Your task to perform on an android device: Open Youtube and go to "Your channel" Image 0: 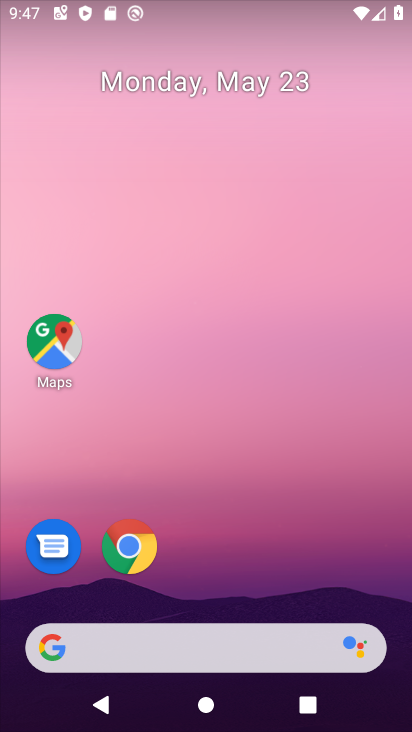
Step 0: drag from (366, 595) to (316, 161)
Your task to perform on an android device: Open Youtube and go to "Your channel" Image 1: 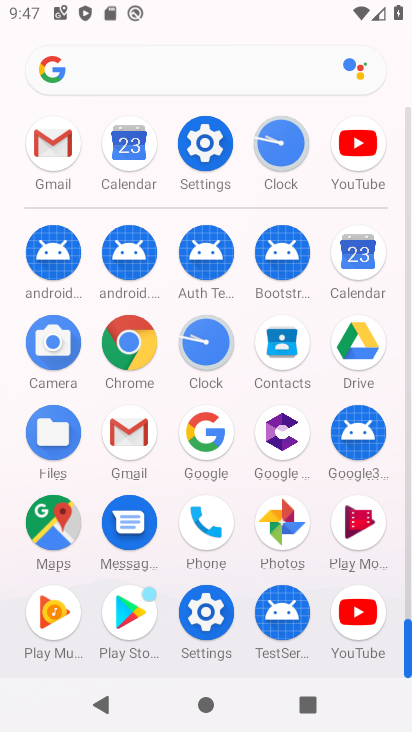
Step 1: click (357, 614)
Your task to perform on an android device: Open Youtube and go to "Your channel" Image 2: 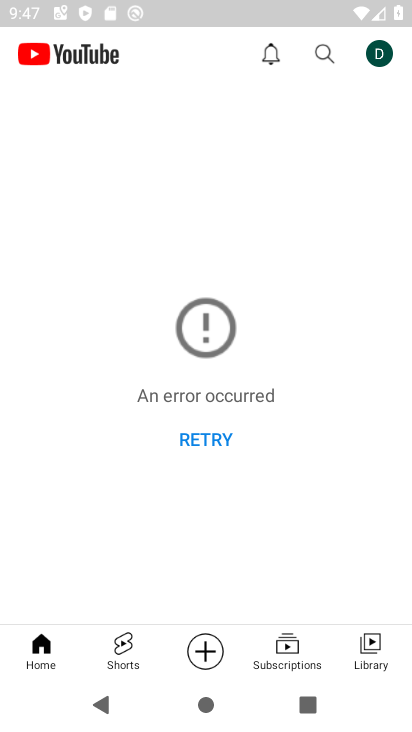
Step 2: click (382, 58)
Your task to perform on an android device: Open Youtube and go to "Your channel" Image 3: 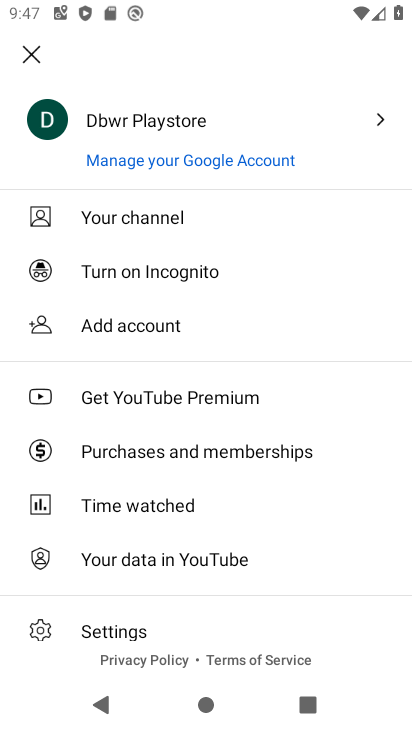
Step 3: click (116, 220)
Your task to perform on an android device: Open Youtube and go to "Your channel" Image 4: 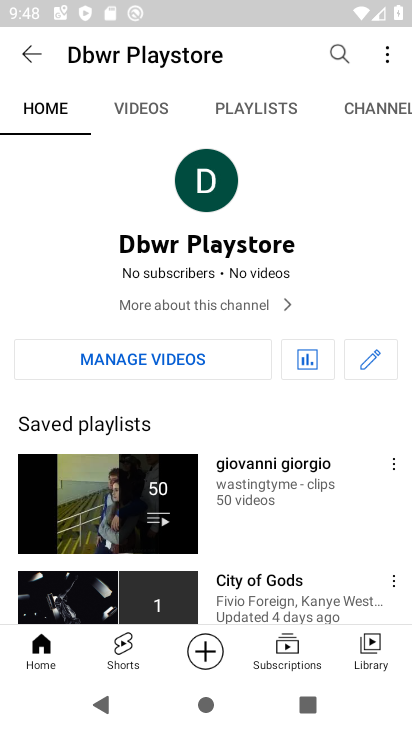
Step 4: task complete